Your task to perform on an android device: Go to accessibility settings Image 0: 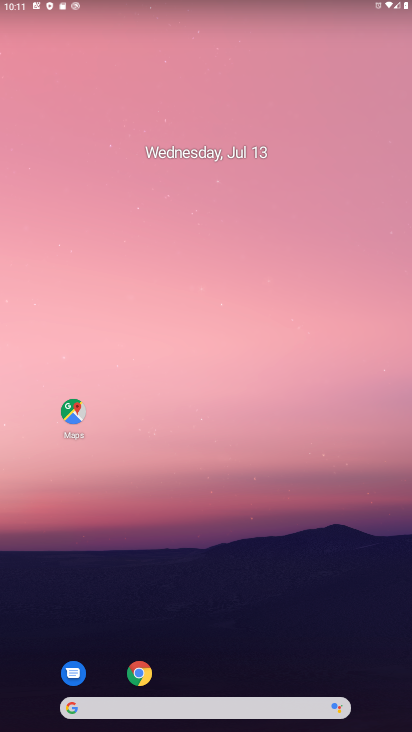
Step 0: drag from (215, 636) to (294, 32)
Your task to perform on an android device: Go to accessibility settings Image 1: 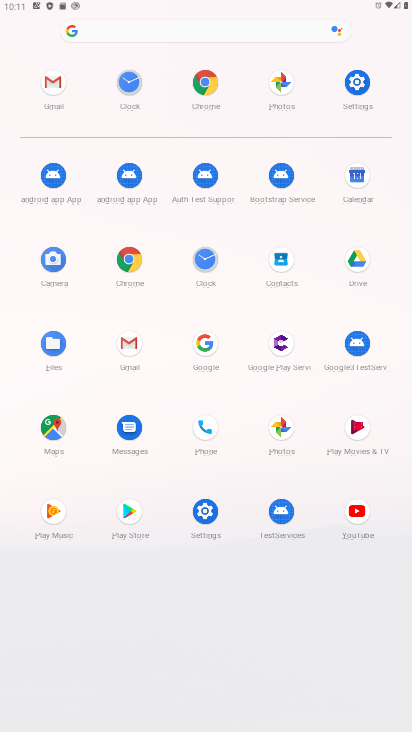
Step 1: click (341, 79)
Your task to perform on an android device: Go to accessibility settings Image 2: 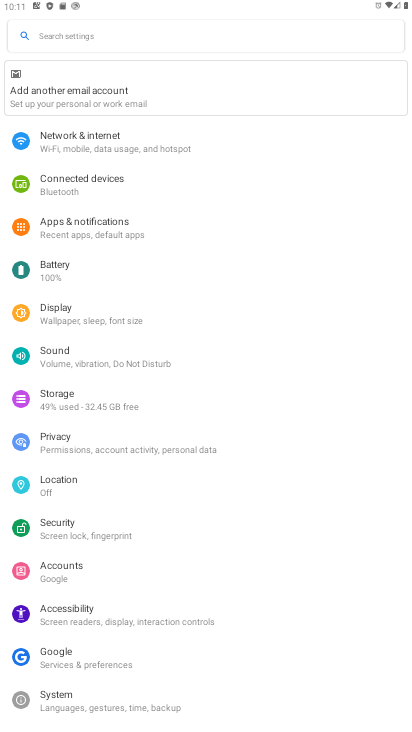
Step 2: click (67, 606)
Your task to perform on an android device: Go to accessibility settings Image 3: 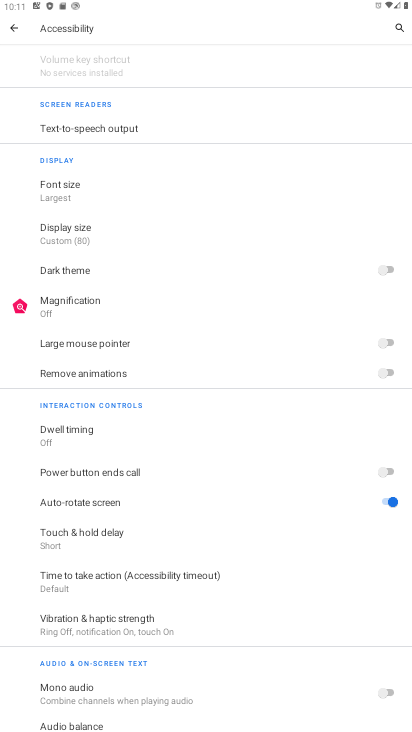
Step 3: task complete